Your task to perform on an android device: Go to network settings Image 0: 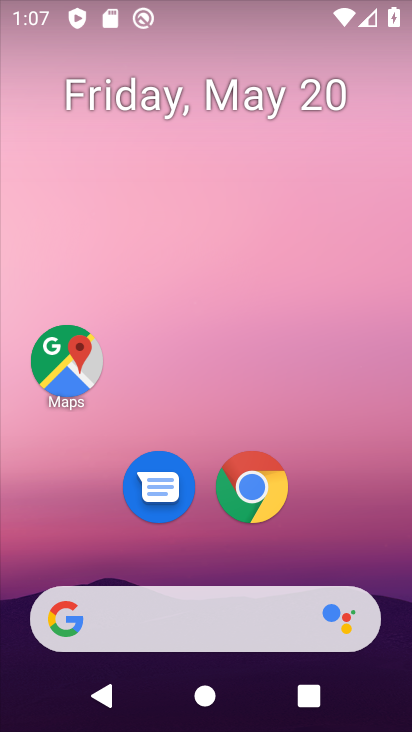
Step 0: drag from (340, 532) to (255, 8)
Your task to perform on an android device: Go to network settings Image 1: 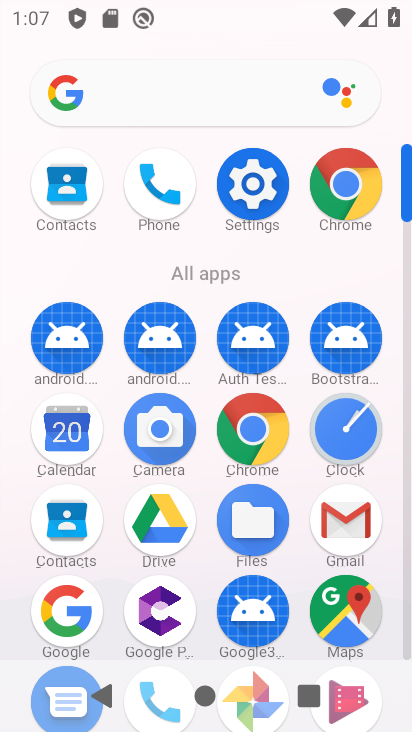
Step 1: drag from (10, 598) to (19, 238)
Your task to perform on an android device: Go to network settings Image 2: 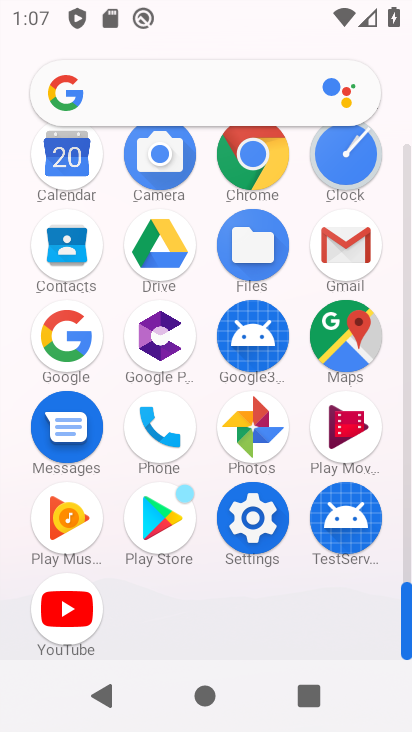
Step 2: click (251, 512)
Your task to perform on an android device: Go to network settings Image 3: 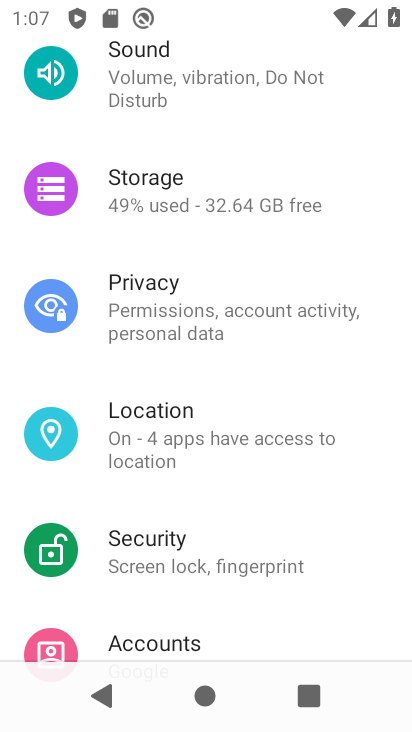
Step 3: drag from (249, 449) to (246, 117)
Your task to perform on an android device: Go to network settings Image 4: 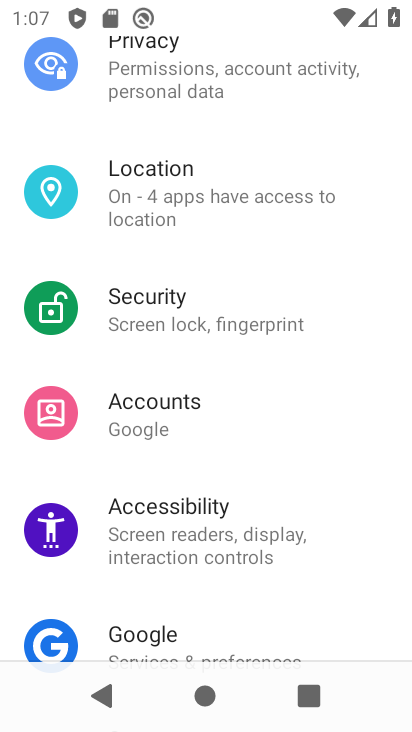
Step 4: drag from (244, 497) to (266, 130)
Your task to perform on an android device: Go to network settings Image 5: 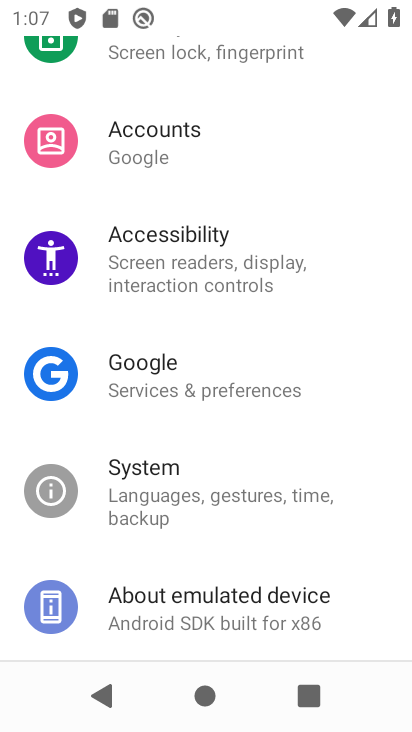
Step 5: drag from (240, 152) to (247, 550)
Your task to perform on an android device: Go to network settings Image 6: 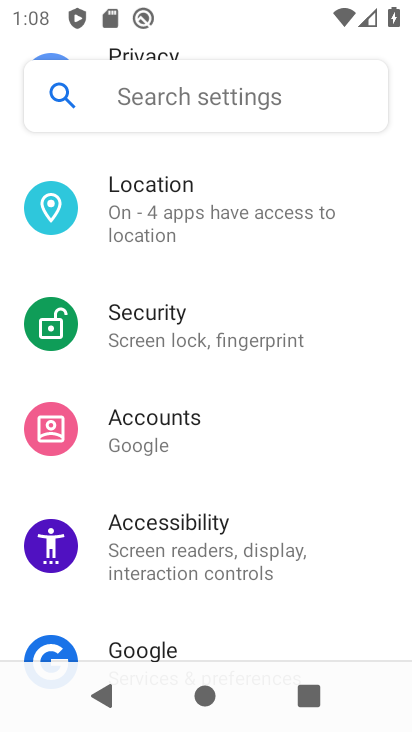
Step 6: drag from (235, 219) to (242, 573)
Your task to perform on an android device: Go to network settings Image 7: 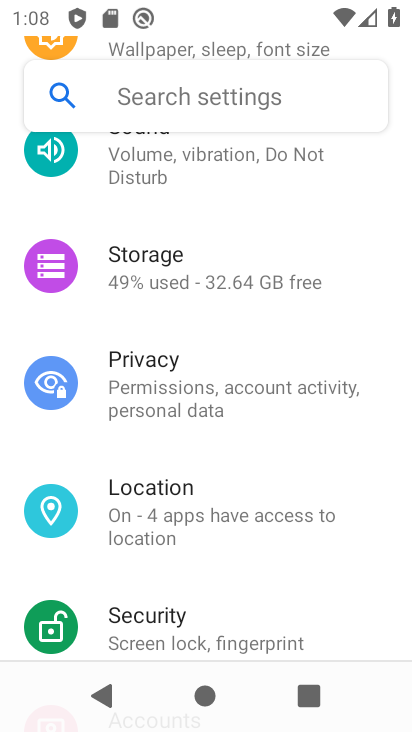
Step 7: drag from (226, 253) to (231, 647)
Your task to perform on an android device: Go to network settings Image 8: 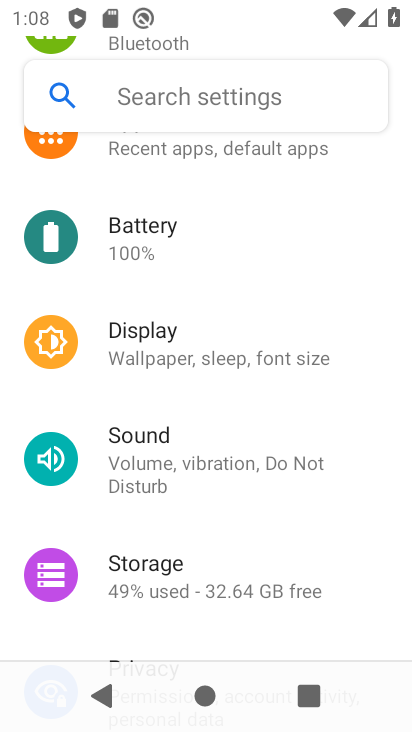
Step 8: drag from (260, 253) to (252, 602)
Your task to perform on an android device: Go to network settings Image 9: 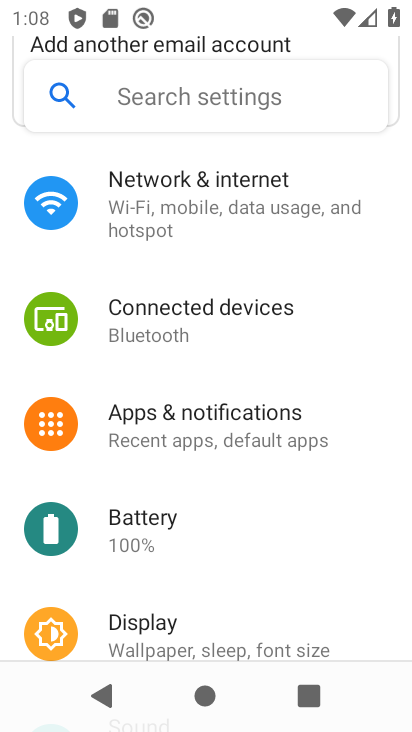
Step 9: drag from (295, 279) to (283, 598)
Your task to perform on an android device: Go to network settings Image 10: 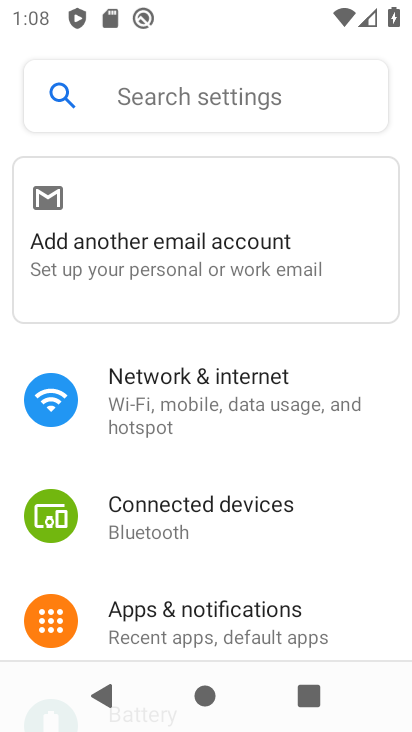
Step 10: click (174, 358)
Your task to perform on an android device: Go to network settings Image 11: 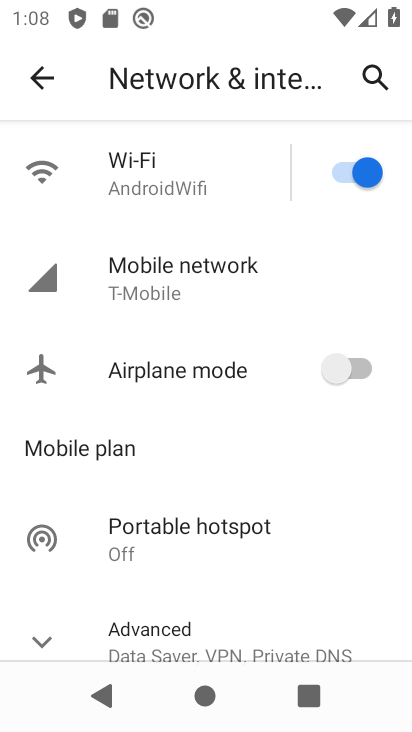
Step 11: task complete